Your task to perform on an android device: Go to ESPN.com Image 0: 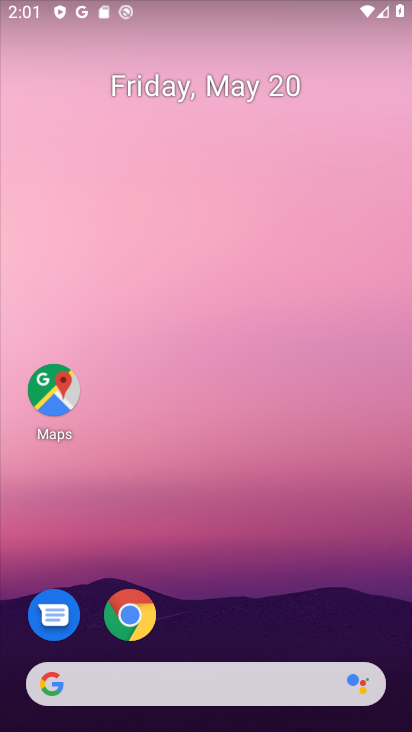
Step 0: click (137, 633)
Your task to perform on an android device: Go to ESPN.com Image 1: 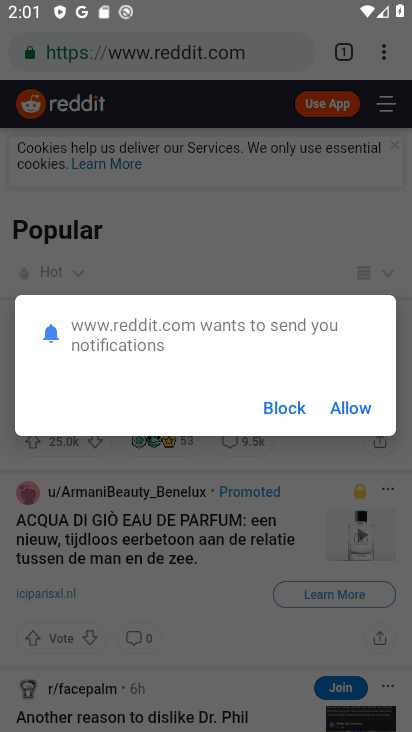
Step 1: click (292, 405)
Your task to perform on an android device: Go to ESPN.com Image 2: 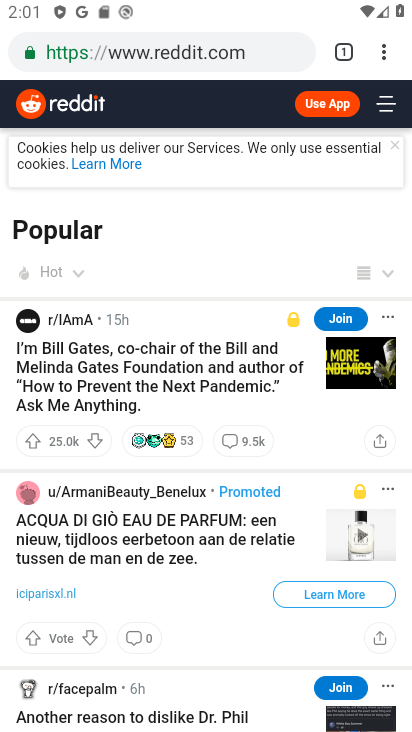
Step 2: click (181, 49)
Your task to perform on an android device: Go to ESPN.com Image 3: 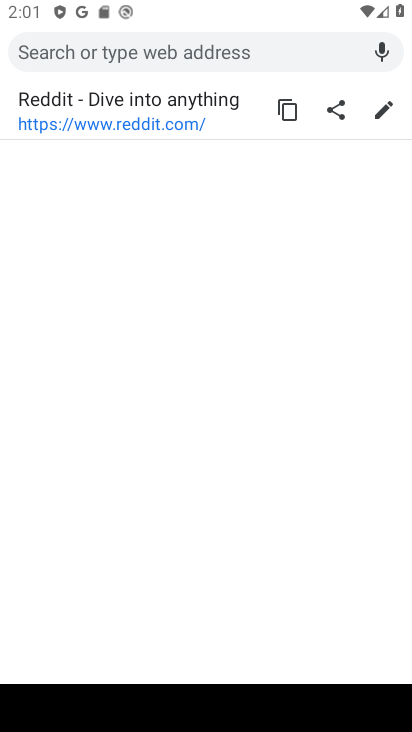
Step 3: type "espn.com"
Your task to perform on an android device: Go to ESPN.com Image 4: 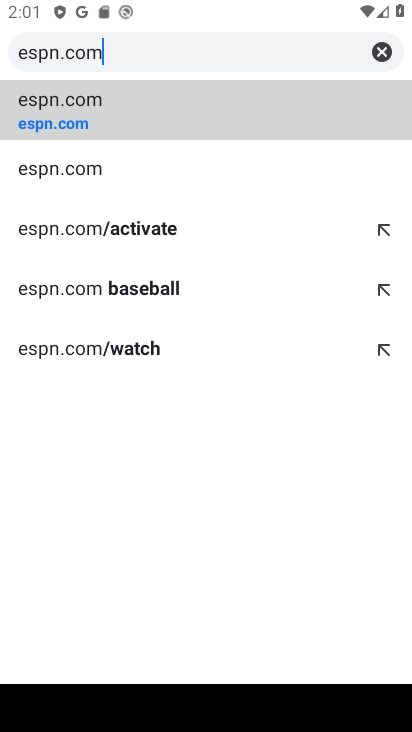
Step 4: click (57, 120)
Your task to perform on an android device: Go to ESPN.com Image 5: 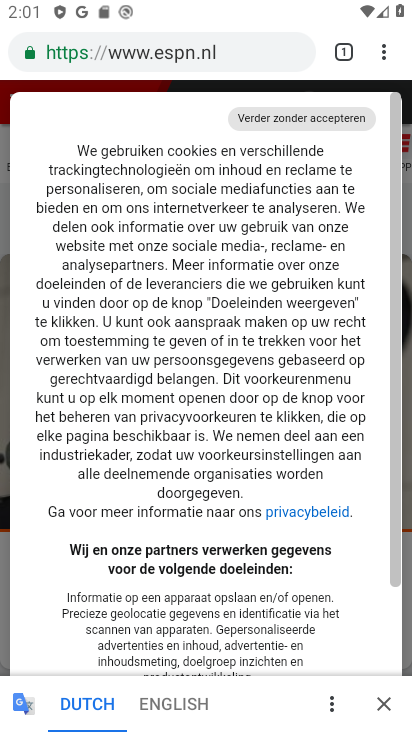
Step 5: drag from (362, 641) to (312, 165)
Your task to perform on an android device: Go to ESPN.com Image 6: 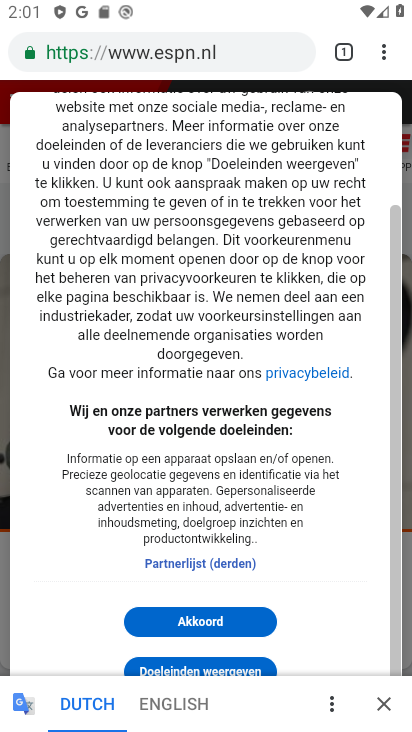
Step 6: click (211, 629)
Your task to perform on an android device: Go to ESPN.com Image 7: 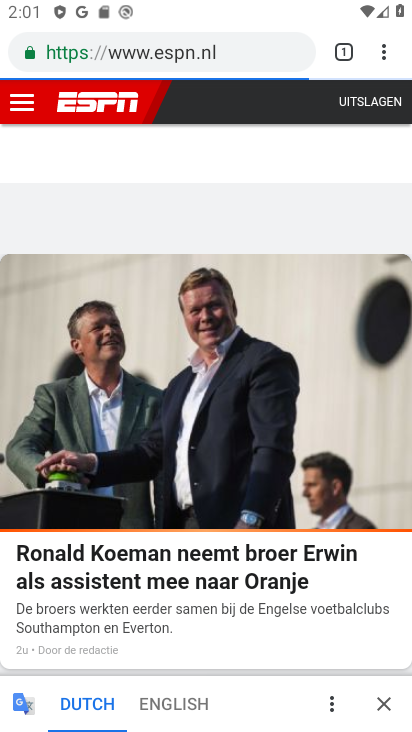
Step 7: task complete